Your task to perform on an android device: Open Chrome and go to the settings page Image 0: 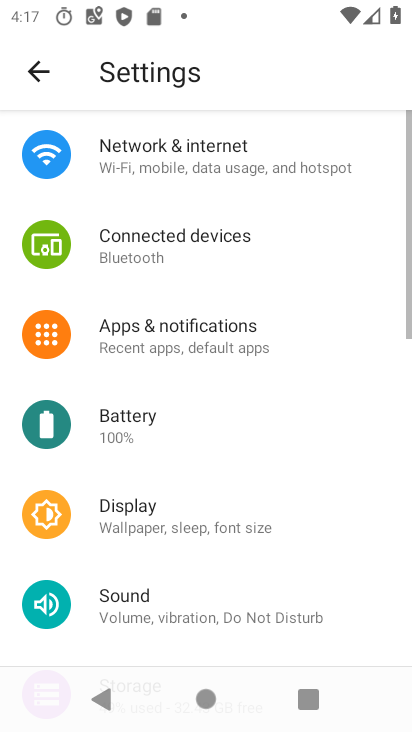
Step 0: press home button
Your task to perform on an android device: Open Chrome and go to the settings page Image 1: 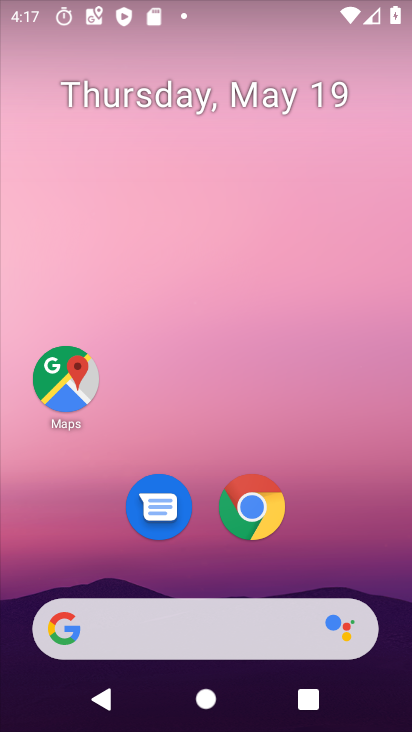
Step 1: click (251, 506)
Your task to perform on an android device: Open Chrome and go to the settings page Image 2: 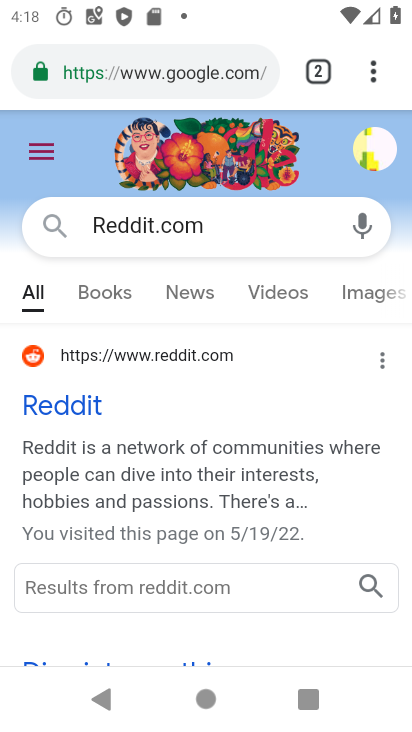
Step 2: click (373, 67)
Your task to perform on an android device: Open Chrome and go to the settings page Image 3: 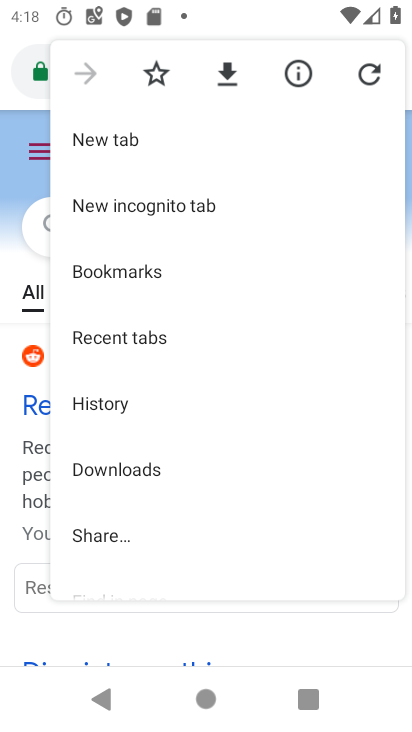
Step 3: drag from (220, 539) to (241, 258)
Your task to perform on an android device: Open Chrome and go to the settings page Image 4: 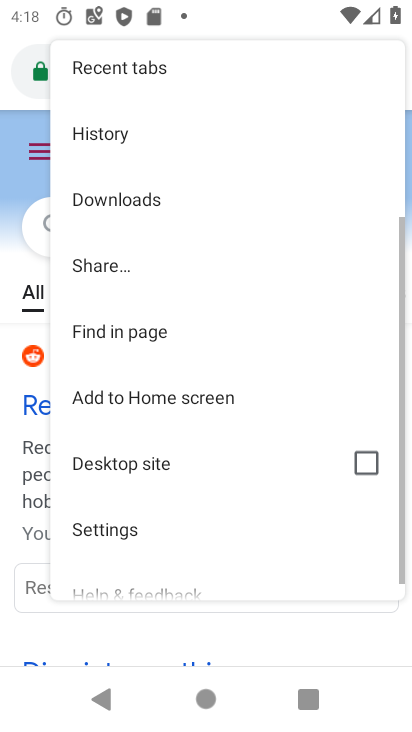
Step 4: click (75, 533)
Your task to perform on an android device: Open Chrome and go to the settings page Image 5: 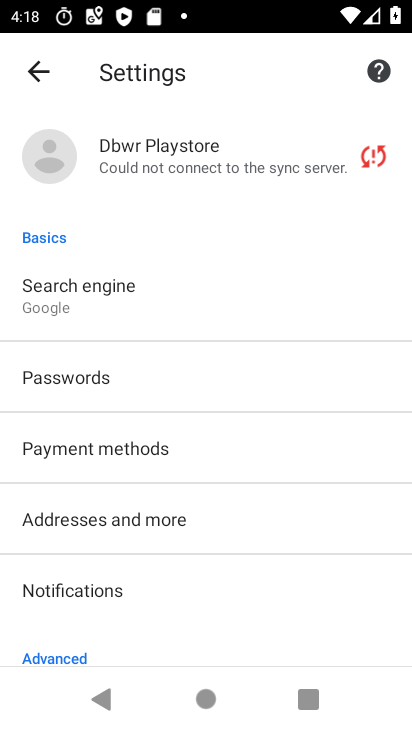
Step 5: task complete